Your task to perform on an android device: What's a good restaurant in Dallas? Image 0: 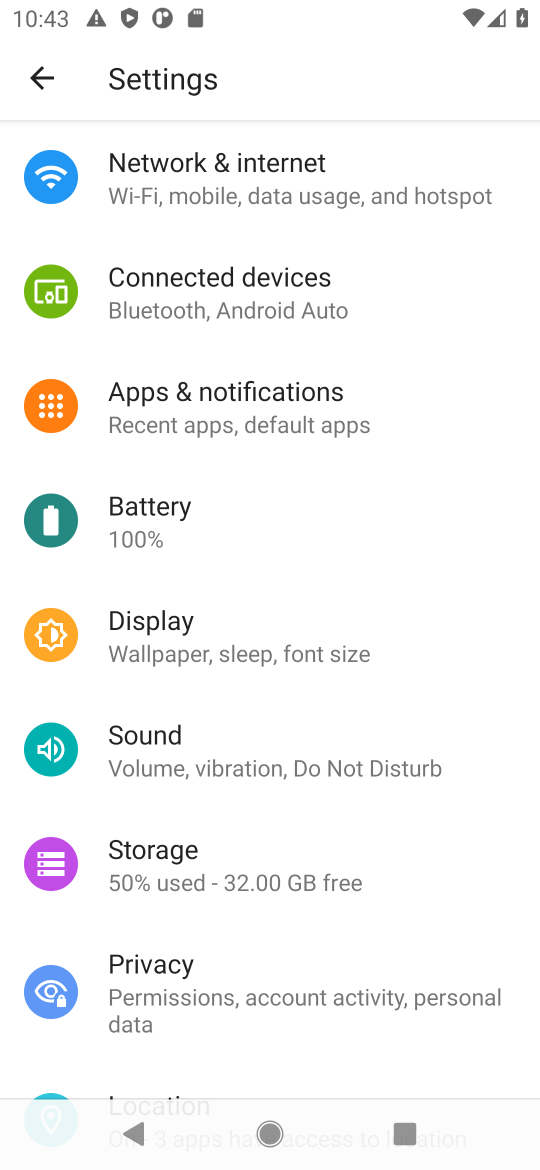
Step 0: click (532, 467)
Your task to perform on an android device: What's a good restaurant in Dallas? Image 1: 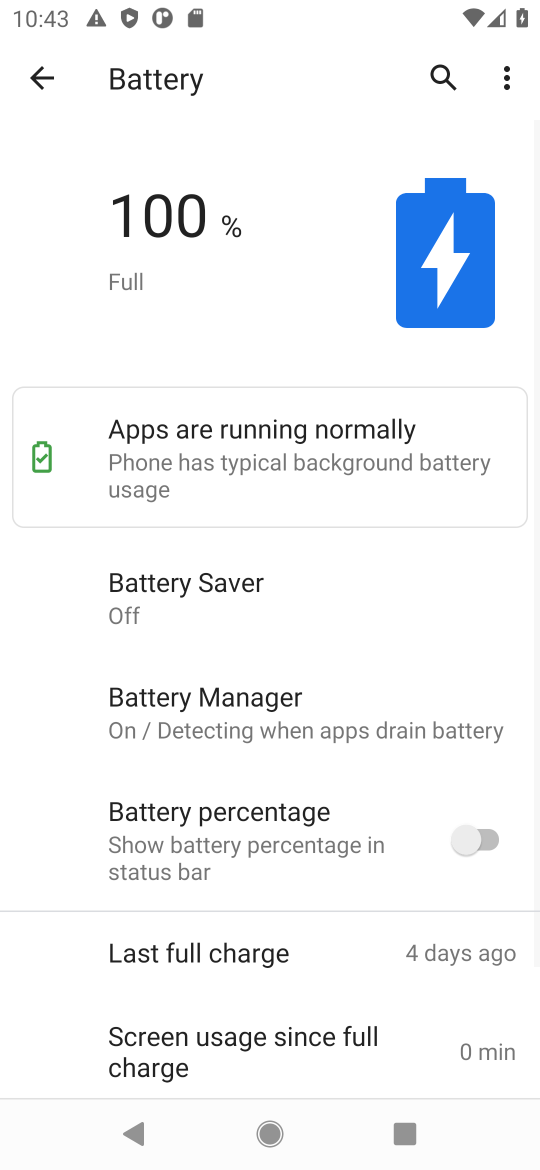
Step 1: press home button
Your task to perform on an android device: What's a good restaurant in Dallas? Image 2: 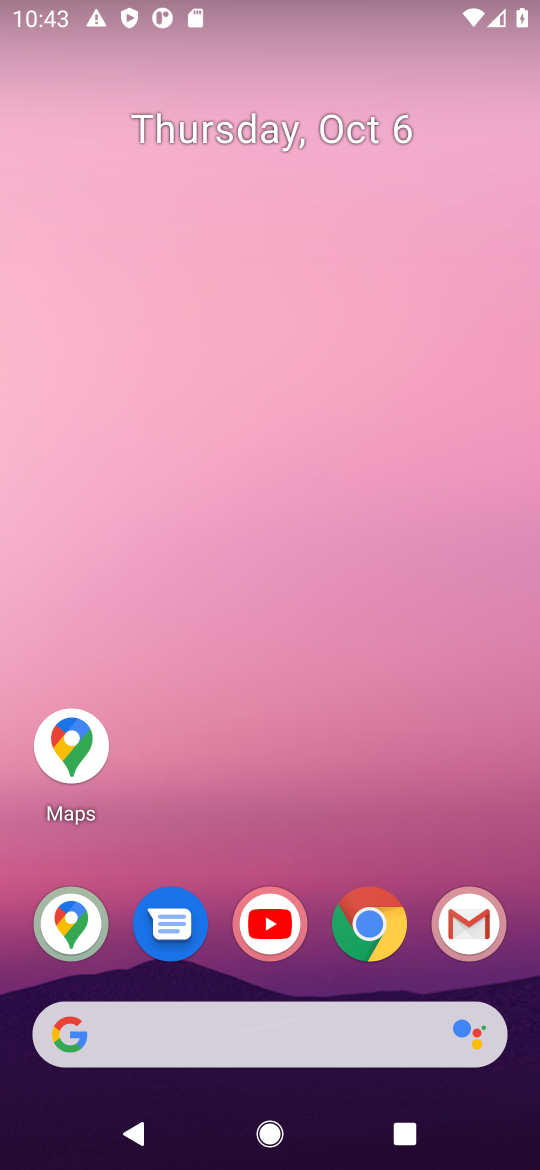
Step 2: click (71, 745)
Your task to perform on an android device: What's a good restaurant in Dallas? Image 3: 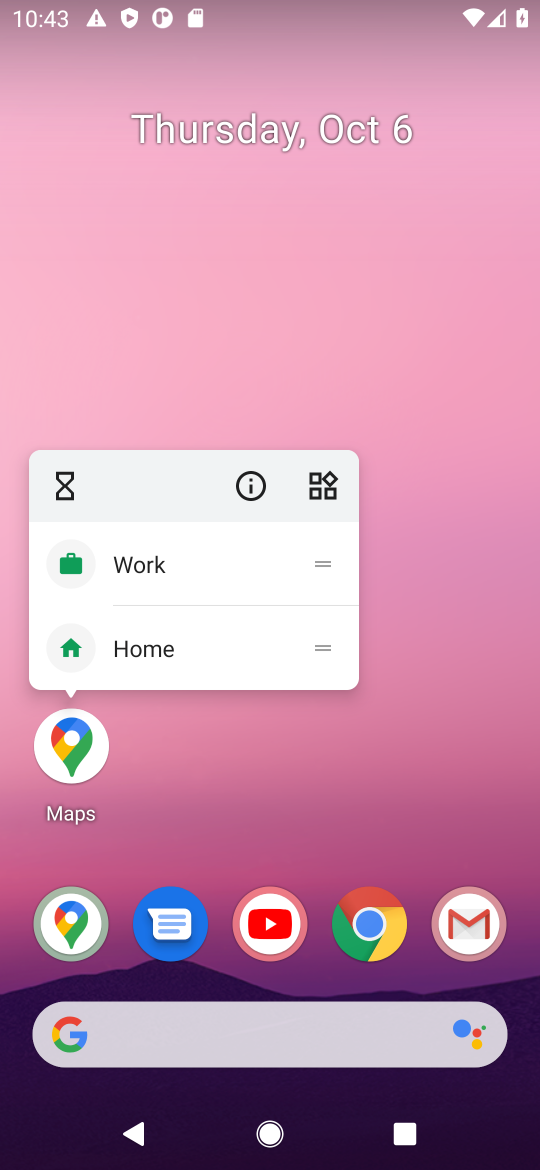
Step 3: click (71, 745)
Your task to perform on an android device: What's a good restaurant in Dallas? Image 4: 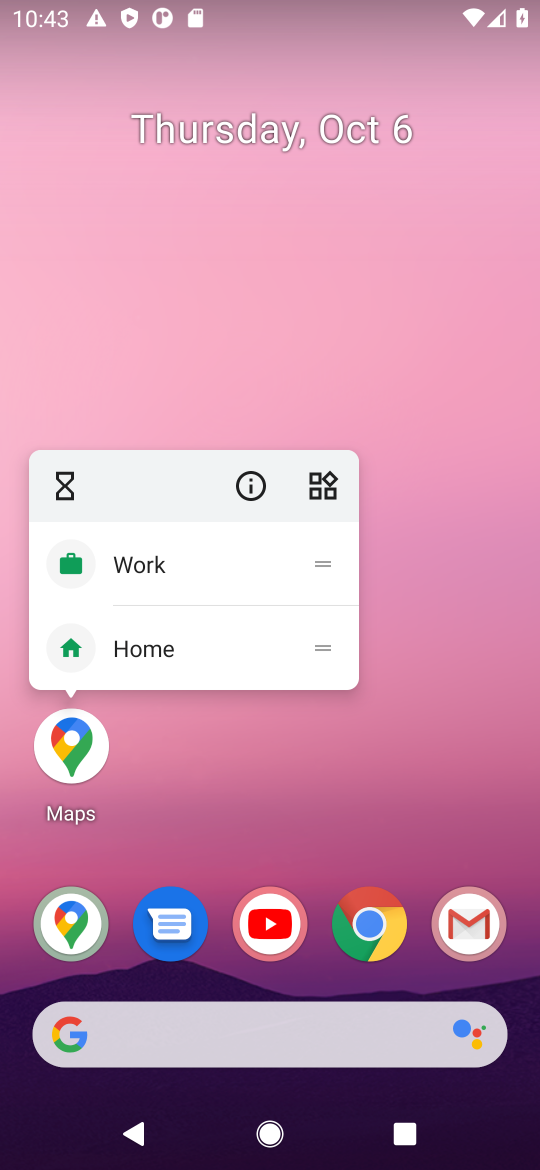
Step 4: click (71, 745)
Your task to perform on an android device: What's a good restaurant in Dallas? Image 5: 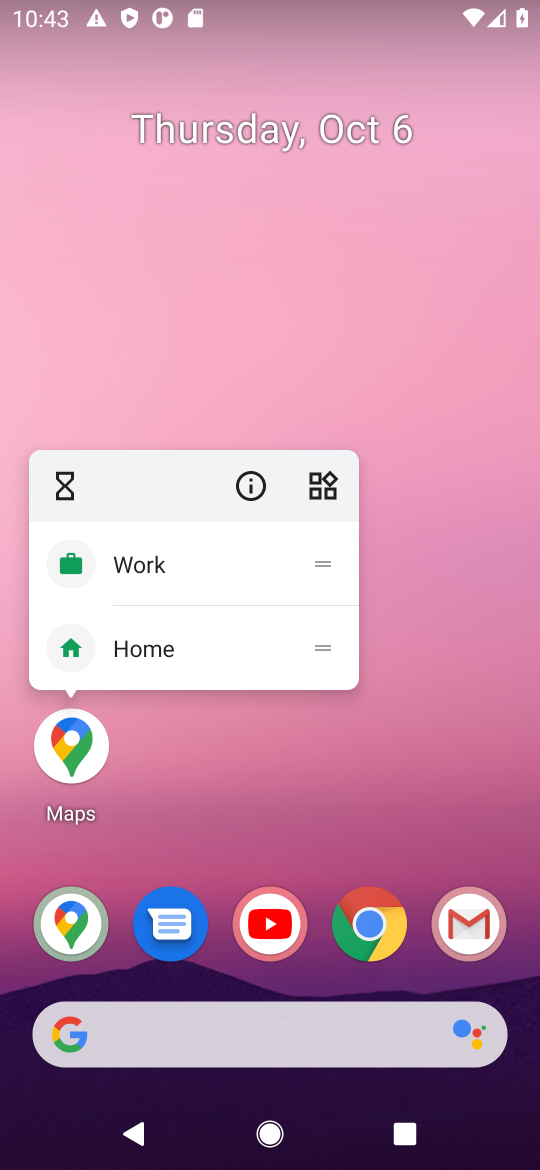
Step 5: click (77, 761)
Your task to perform on an android device: What's a good restaurant in Dallas? Image 6: 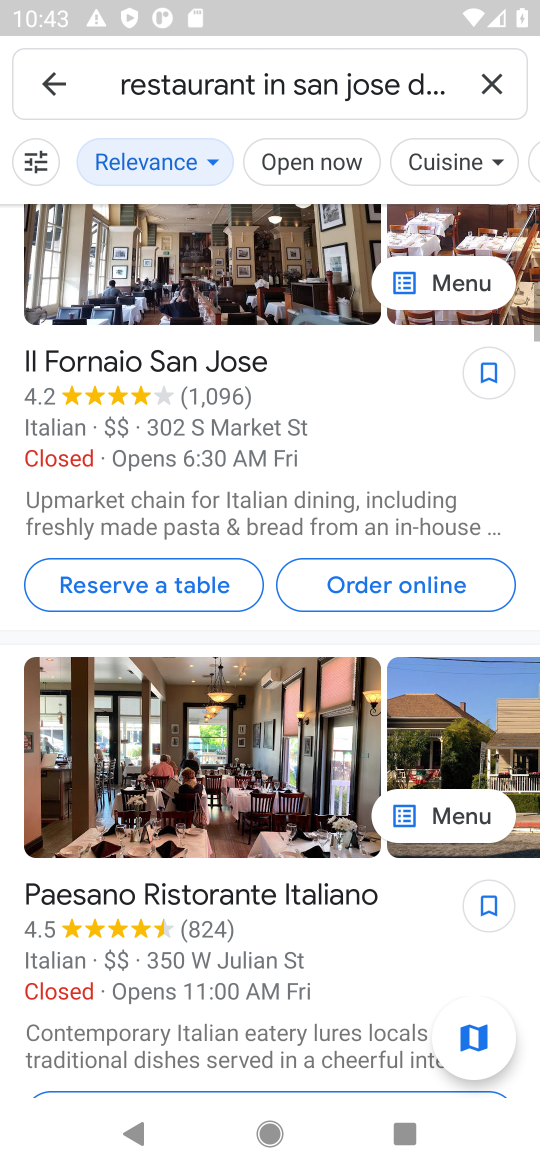
Step 6: click (479, 74)
Your task to perform on an android device: What's a good restaurant in Dallas? Image 7: 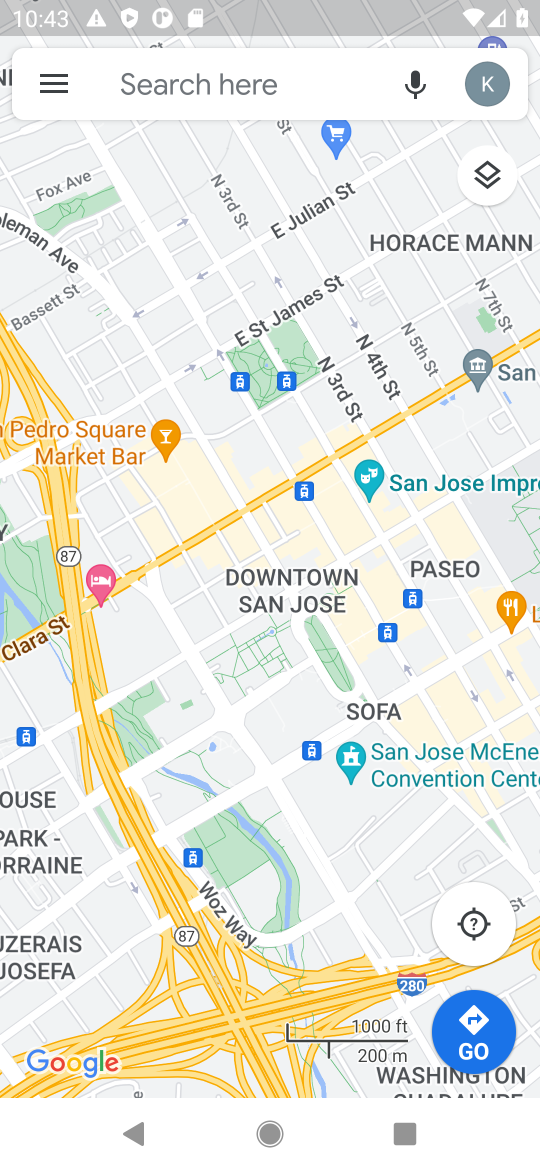
Step 7: click (208, 66)
Your task to perform on an android device: What's a good restaurant in Dallas? Image 8: 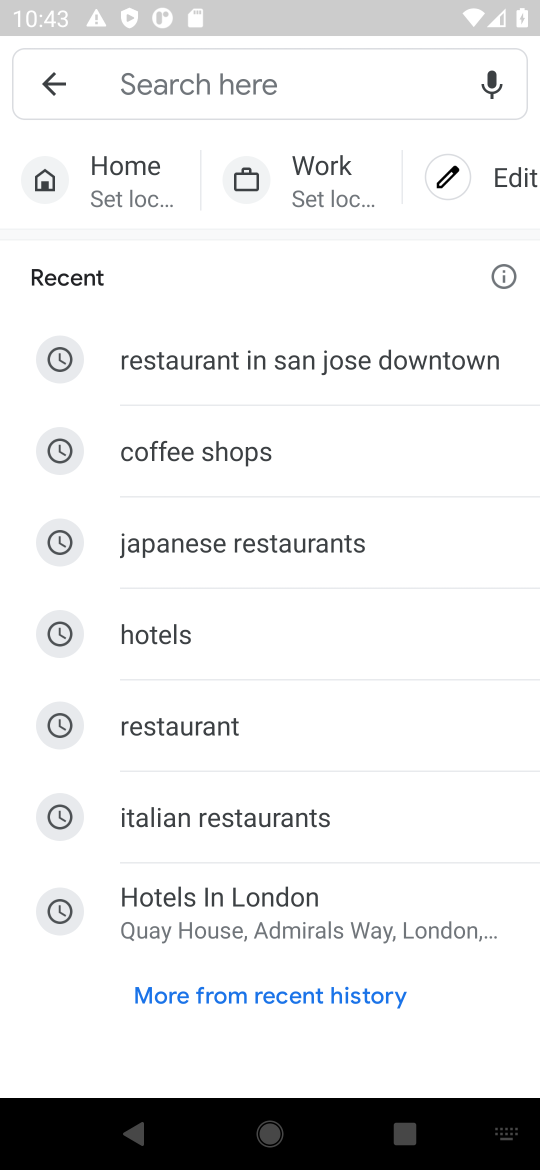
Step 8: type "restaurant in Dallas"
Your task to perform on an android device: What's a good restaurant in Dallas? Image 9: 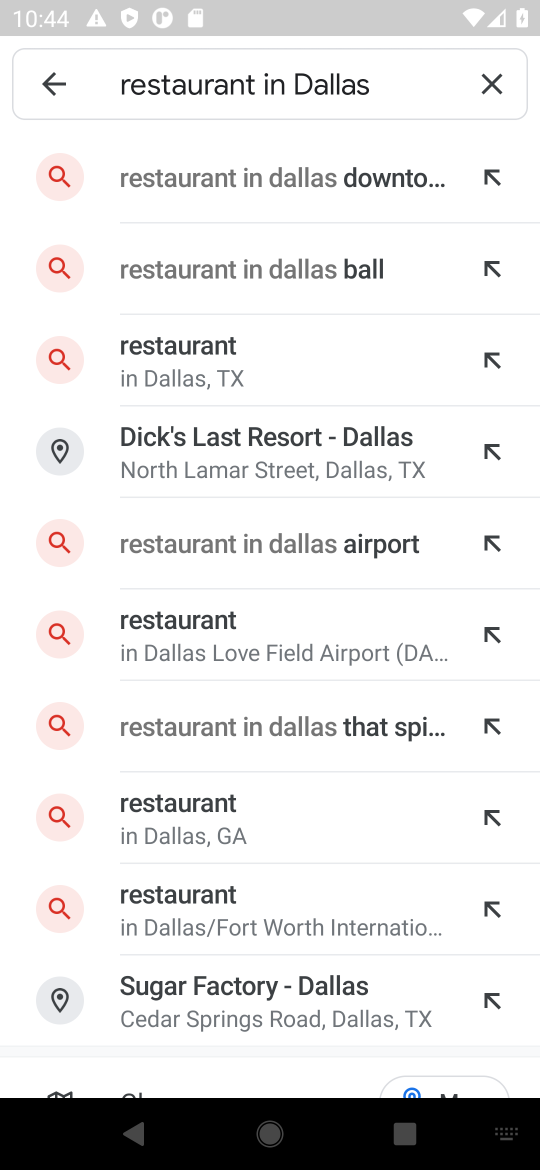
Step 9: click (217, 180)
Your task to perform on an android device: What's a good restaurant in Dallas? Image 10: 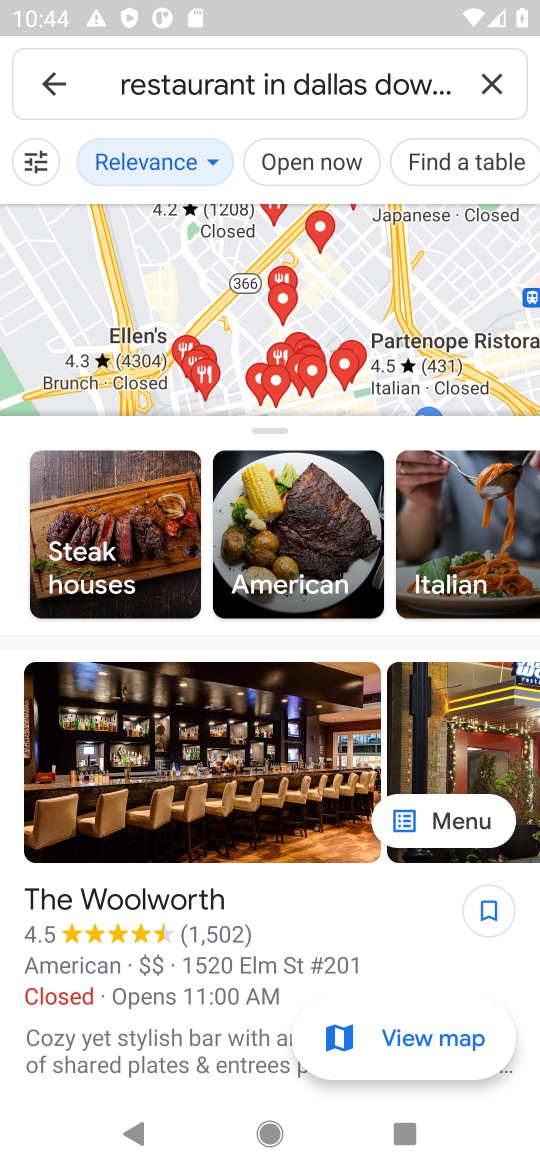
Step 10: task complete